Your task to perform on an android device: turn on notifications settings in the gmail app Image 0: 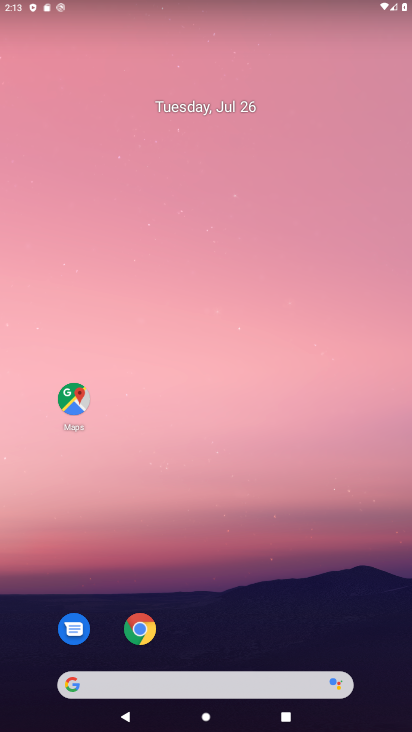
Step 0: drag from (297, 622) to (323, 170)
Your task to perform on an android device: turn on notifications settings in the gmail app Image 1: 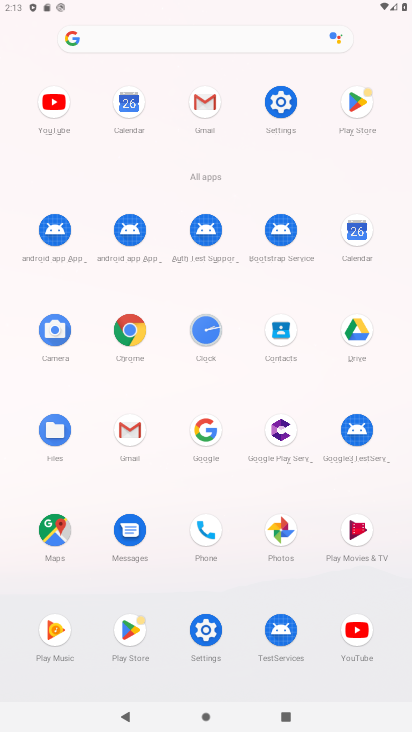
Step 1: click (121, 428)
Your task to perform on an android device: turn on notifications settings in the gmail app Image 2: 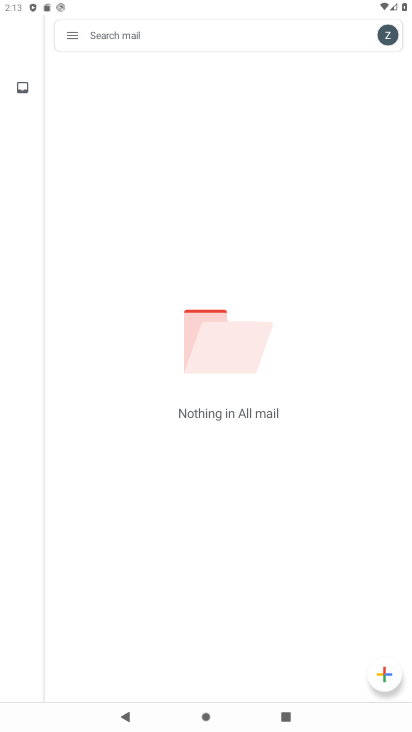
Step 2: click (70, 33)
Your task to perform on an android device: turn on notifications settings in the gmail app Image 3: 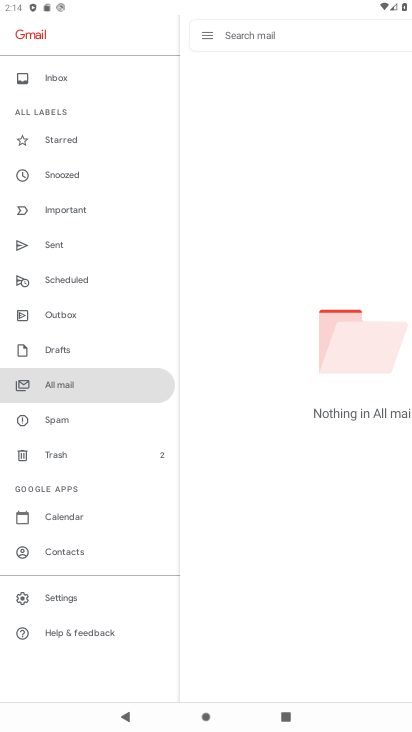
Step 3: drag from (70, 33) to (36, 620)
Your task to perform on an android device: turn on notifications settings in the gmail app Image 4: 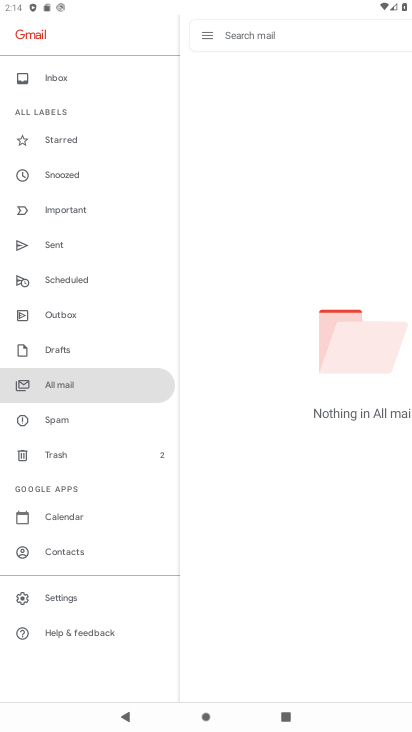
Step 4: click (70, 33)
Your task to perform on an android device: turn on notifications settings in the gmail app Image 5: 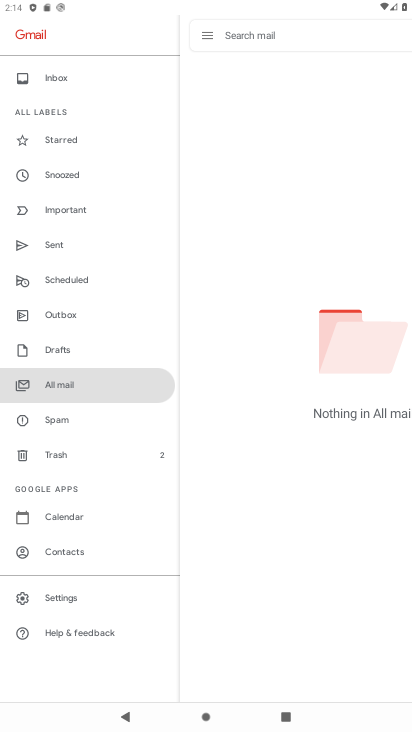
Step 5: drag from (70, 33) to (23, 601)
Your task to perform on an android device: turn on notifications settings in the gmail app Image 6: 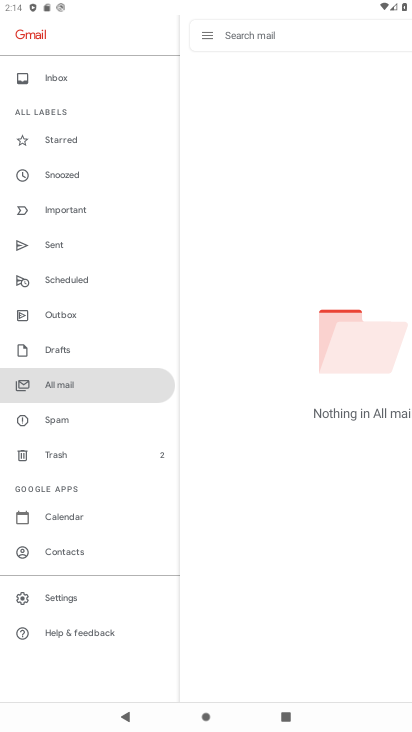
Step 6: click (35, 600)
Your task to perform on an android device: turn on notifications settings in the gmail app Image 7: 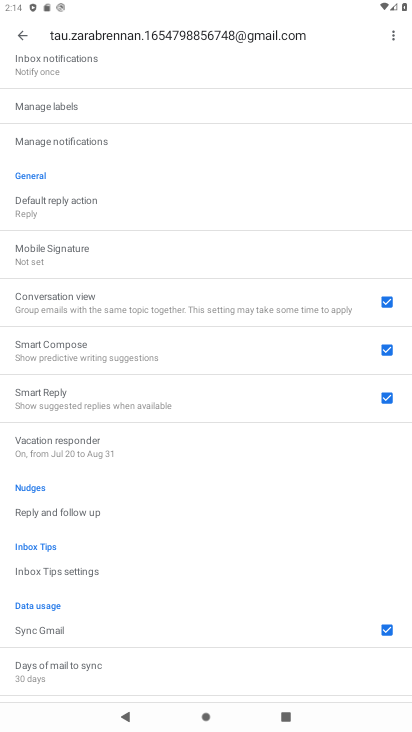
Step 7: click (232, 129)
Your task to perform on an android device: turn on notifications settings in the gmail app Image 8: 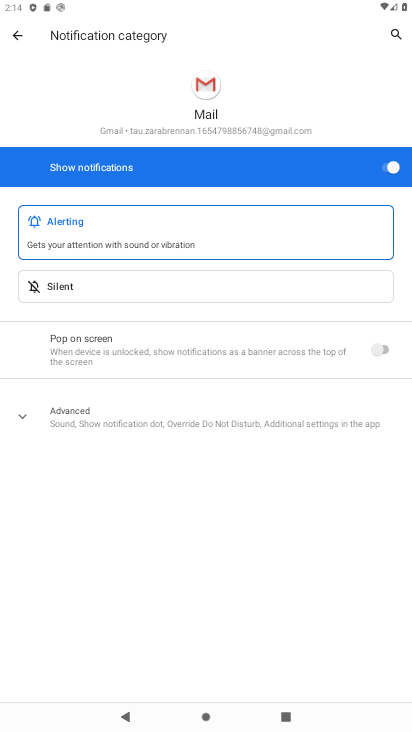
Step 8: task complete